Your task to perform on an android device: Open Google Chrome and click the shortcut for Amazon.com Image 0: 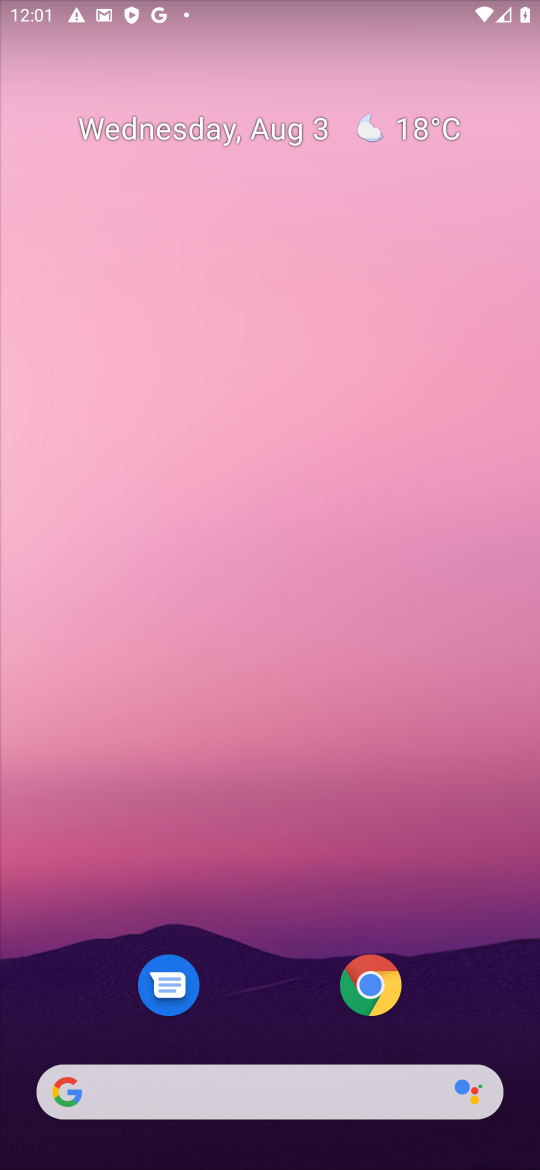
Step 0: press home button
Your task to perform on an android device: Open Google Chrome and click the shortcut for Amazon.com Image 1: 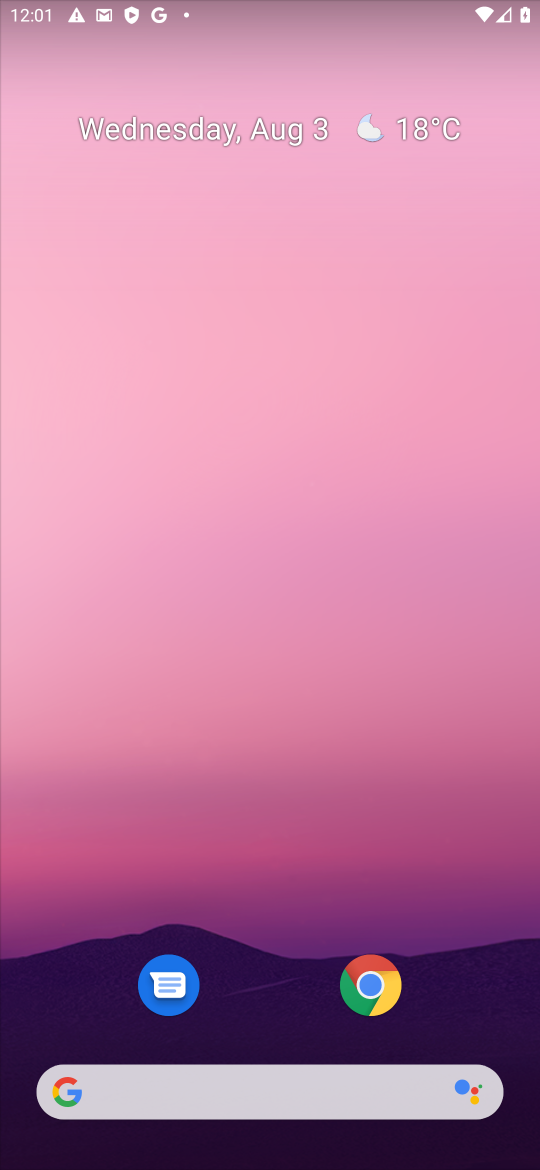
Step 1: click (401, 990)
Your task to perform on an android device: Open Google Chrome and click the shortcut for Amazon.com Image 2: 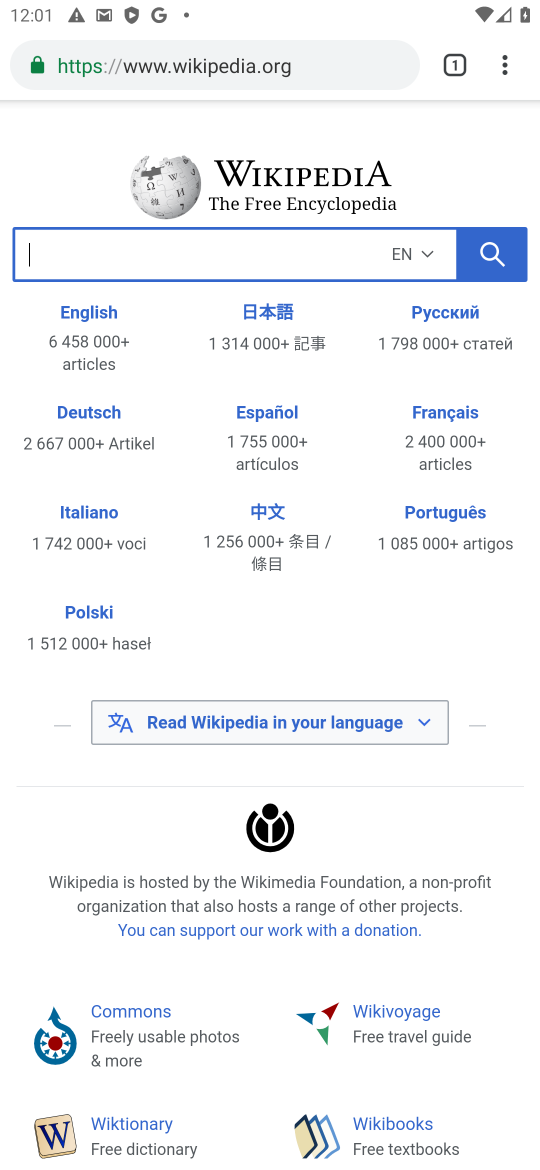
Step 2: click (435, 61)
Your task to perform on an android device: Open Google Chrome and click the shortcut for Amazon.com Image 3: 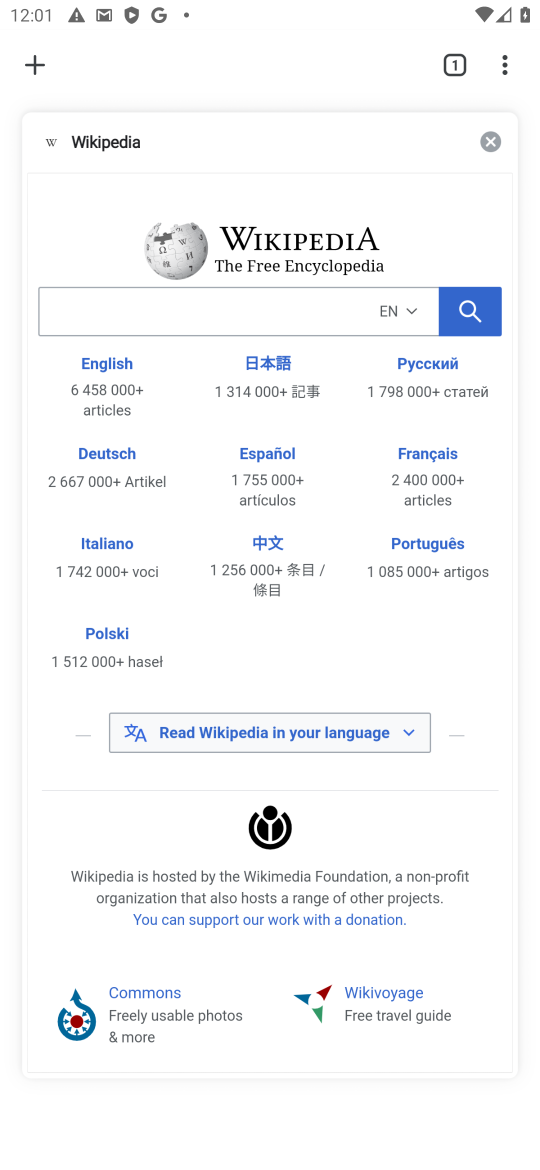
Step 3: click (49, 55)
Your task to perform on an android device: Open Google Chrome and click the shortcut for Amazon.com Image 4: 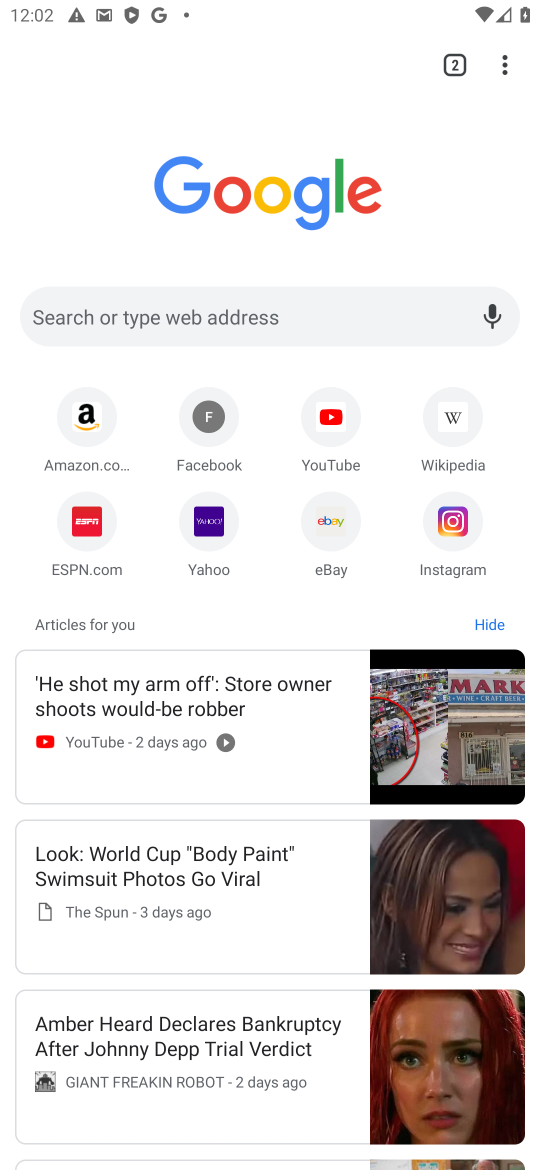
Step 4: click (89, 458)
Your task to perform on an android device: Open Google Chrome and click the shortcut for Amazon.com Image 5: 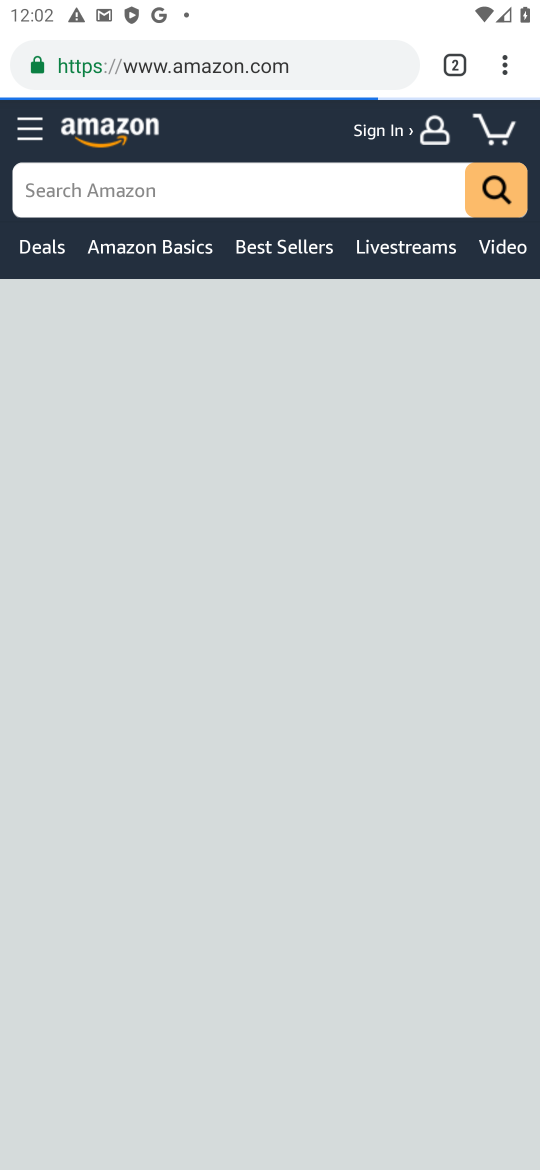
Step 5: task complete